Your task to perform on an android device: Open Reddit.com Image 0: 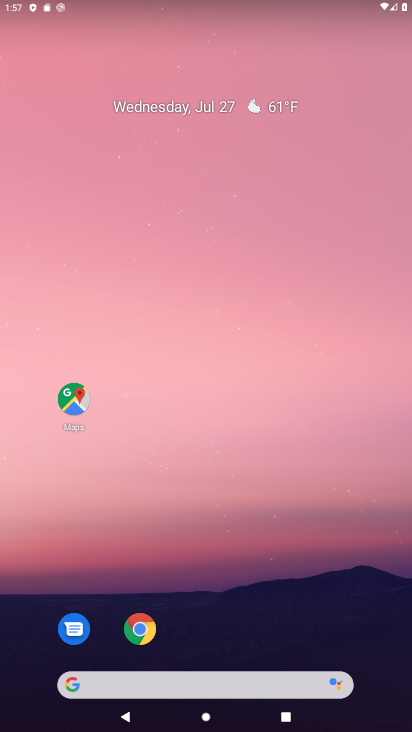
Step 0: click (140, 628)
Your task to perform on an android device: Open Reddit.com Image 1: 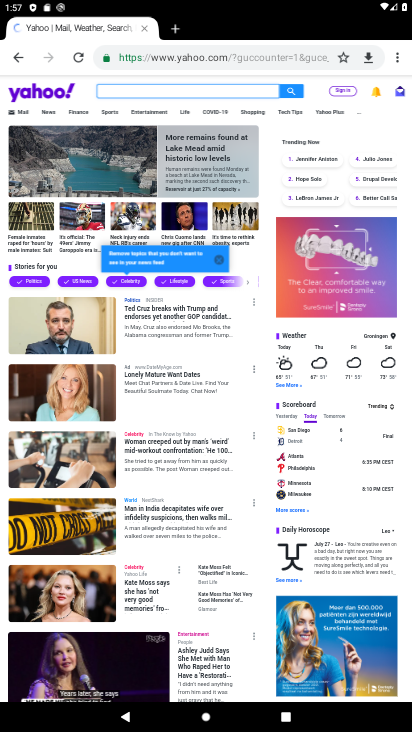
Step 1: click (303, 57)
Your task to perform on an android device: Open Reddit.com Image 2: 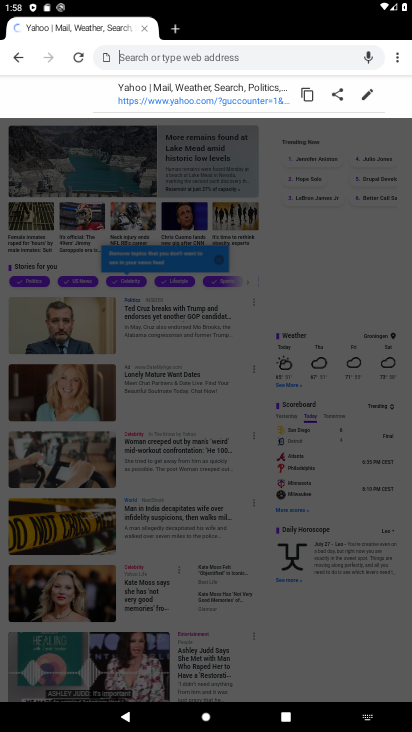
Step 2: type "Reddit.com"
Your task to perform on an android device: Open Reddit.com Image 3: 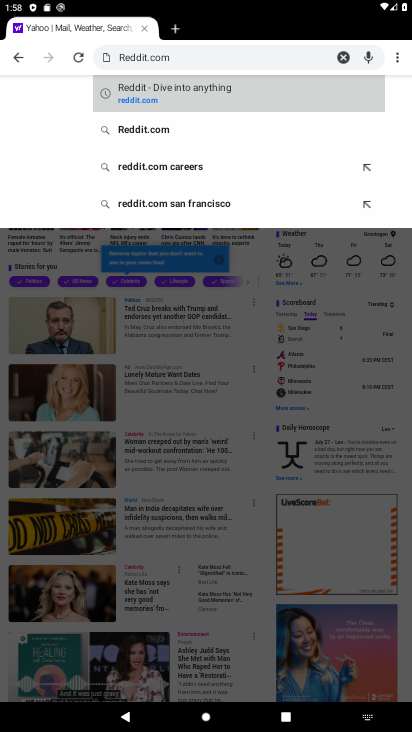
Step 3: click (209, 90)
Your task to perform on an android device: Open Reddit.com Image 4: 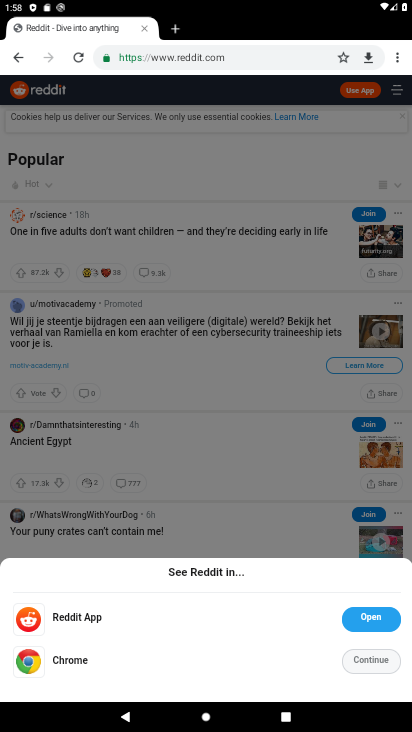
Step 4: click (364, 661)
Your task to perform on an android device: Open Reddit.com Image 5: 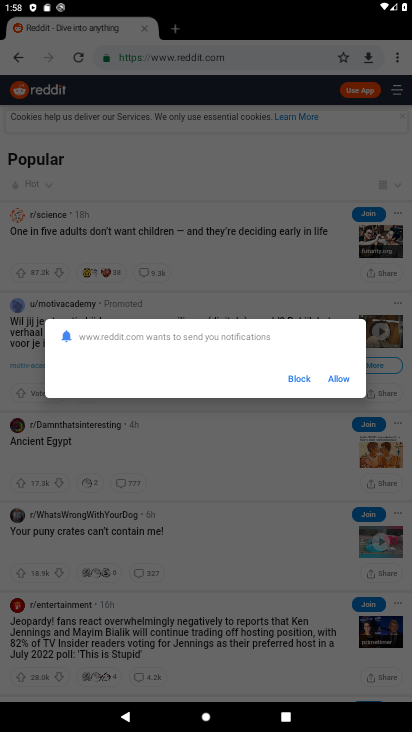
Step 5: click (342, 380)
Your task to perform on an android device: Open Reddit.com Image 6: 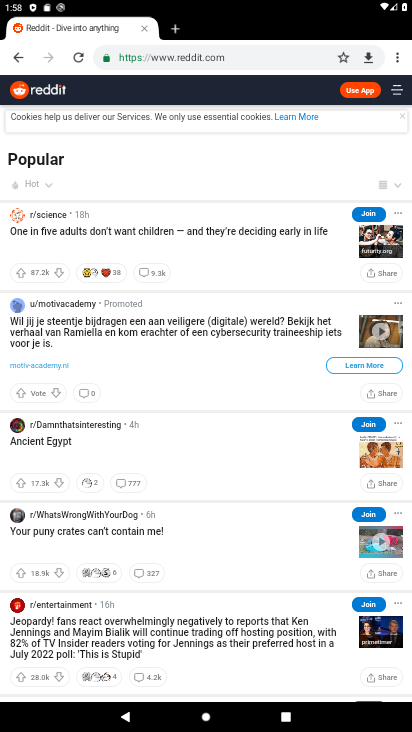
Step 6: task complete